Your task to perform on an android device: Go to calendar. Show me events next week Image 0: 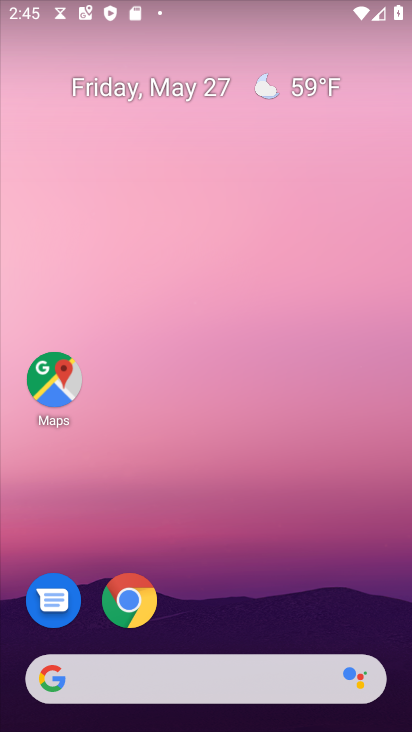
Step 0: drag from (223, 592) to (225, 103)
Your task to perform on an android device: Go to calendar. Show me events next week Image 1: 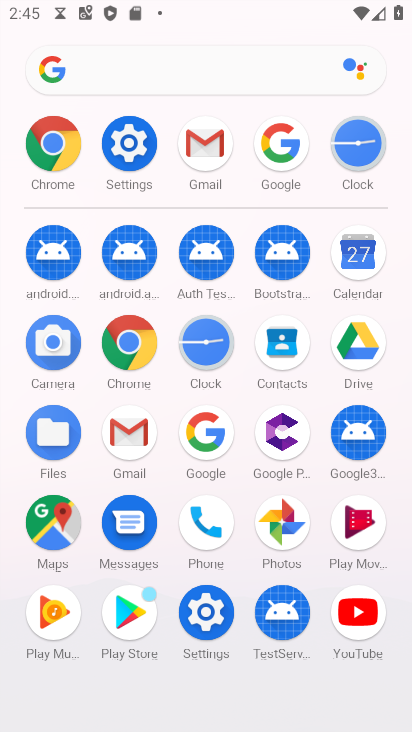
Step 1: click (359, 251)
Your task to perform on an android device: Go to calendar. Show me events next week Image 2: 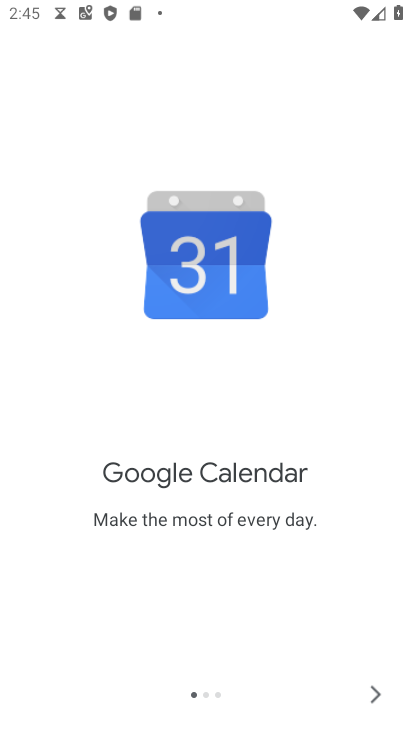
Step 2: click (376, 692)
Your task to perform on an android device: Go to calendar. Show me events next week Image 3: 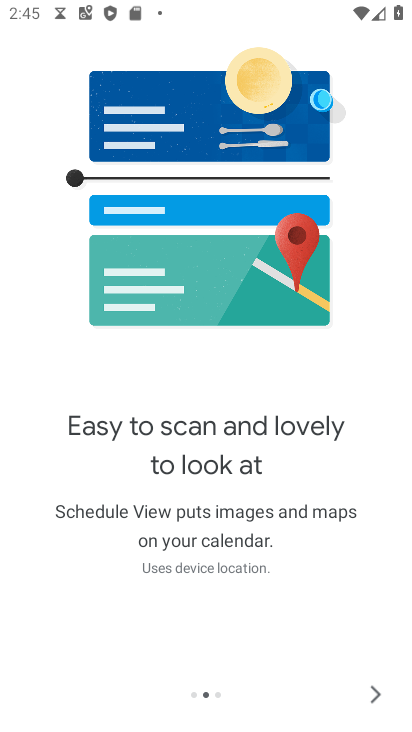
Step 3: click (376, 692)
Your task to perform on an android device: Go to calendar. Show me events next week Image 4: 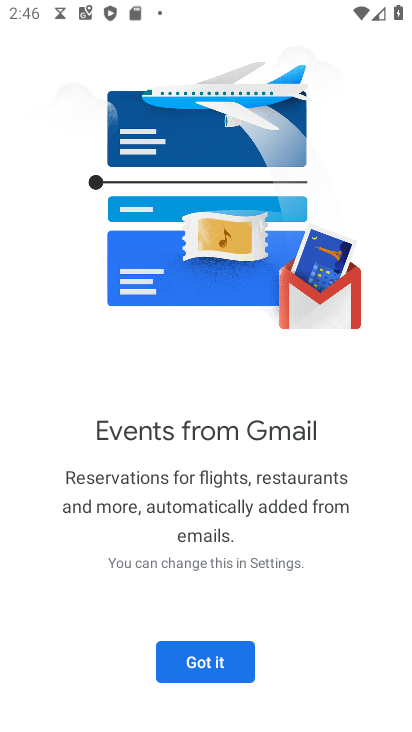
Step 4: click (206, 658)
Your task to perform on an android device: Go to calendar. Show me events next week Image 5: 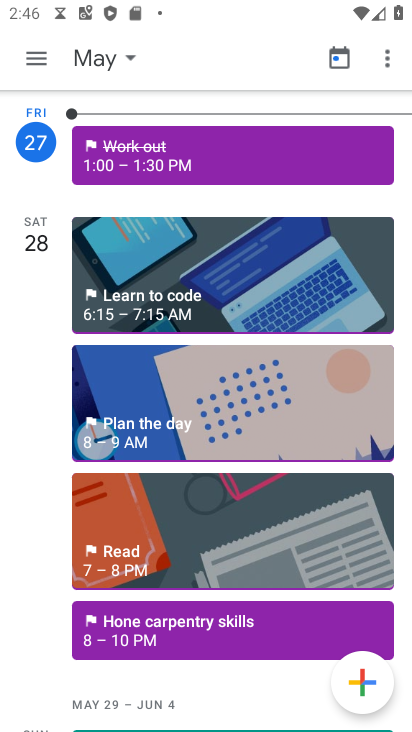
Step 5: click (130, 56)
Your task to perform on an android device: Go to calendar. Show me events next week Image 6: 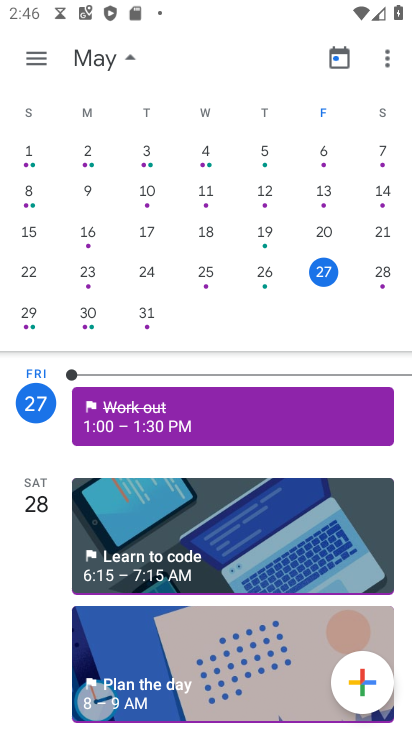
Step 6: click (93, 320)
Your task to perform on an android device: Go to calendar. Show me events next week Image 7: 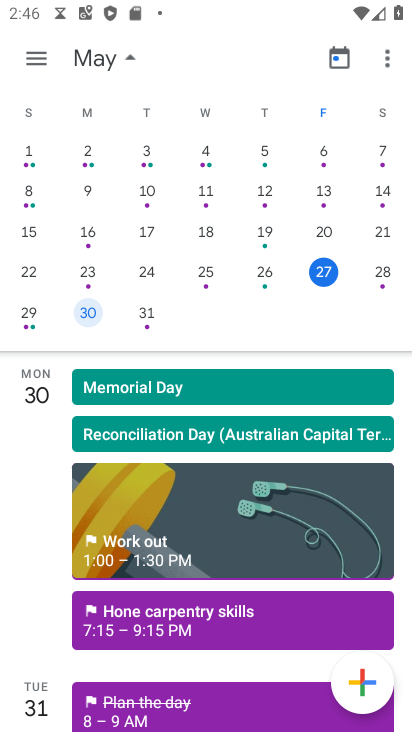
Step 7: click (24, 56)
Your task to perform on an android device: Go to calendar. Show me events next week Image 8: 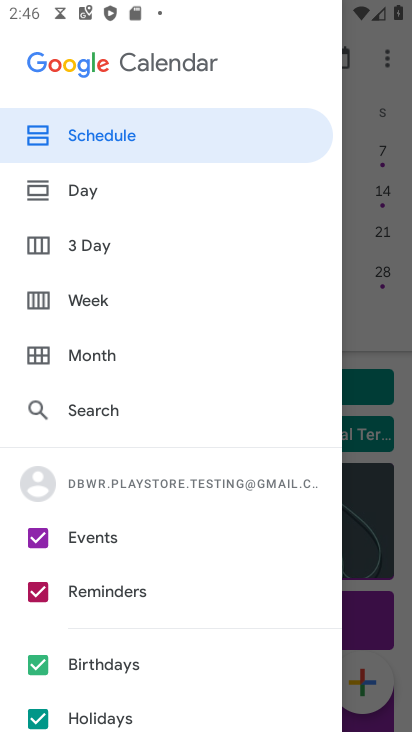
Step 8: click (103, 141)
Your task to perform on an android device: Go to calendar. Show me events next week Image 9: 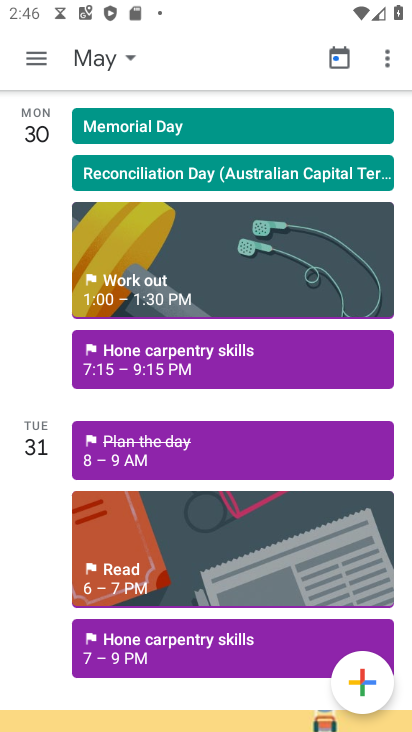
Step 9: task complete